Your task to perform on an android device: change notification settings in the gmail app Image 0: 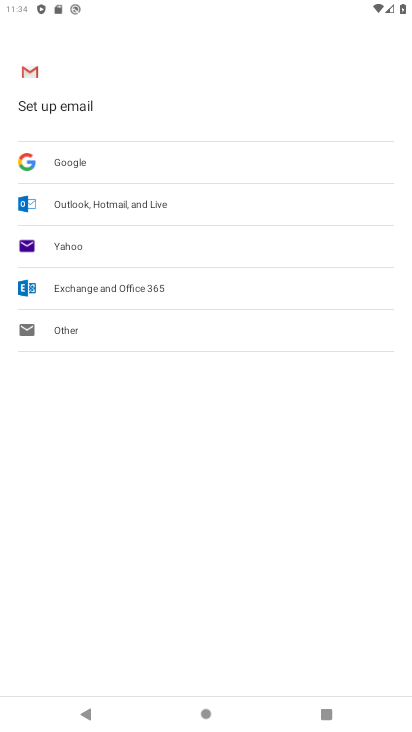
Step 0: press home button
Your task to perform on an android device: change notification settings in the gmail app Image 1: 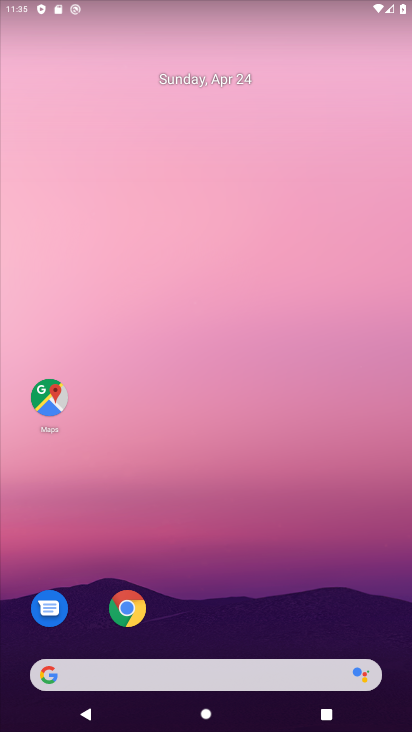
Step 1: drag from (236, 713) to (218, 136)
Your task to perform on an android device: change notification settings in the gmail app Image 2: 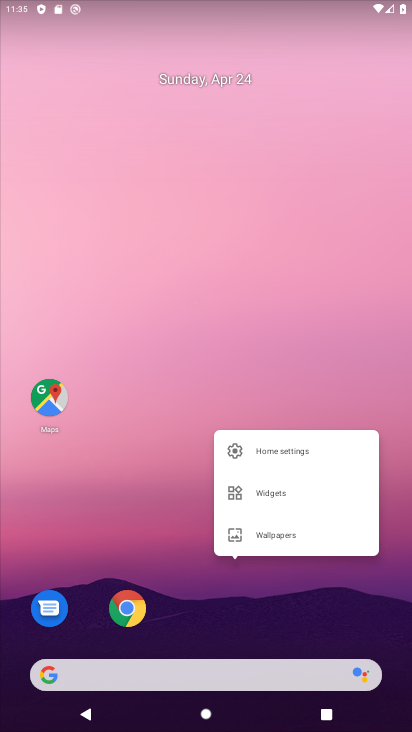
Step 2: click (205, 256)
Your task to perform on an android device: change notification settings in the gmail app Image 3: 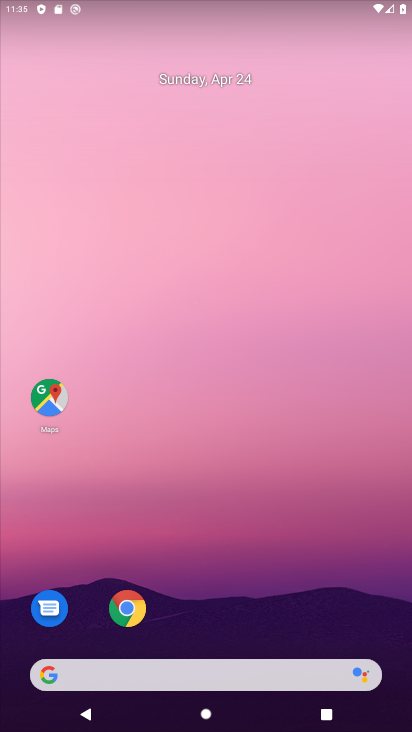
Step 3: drag from (223, 728) to (212, 123)
Your task to perform on an android device: change notification settings in the gmail app Image 4: 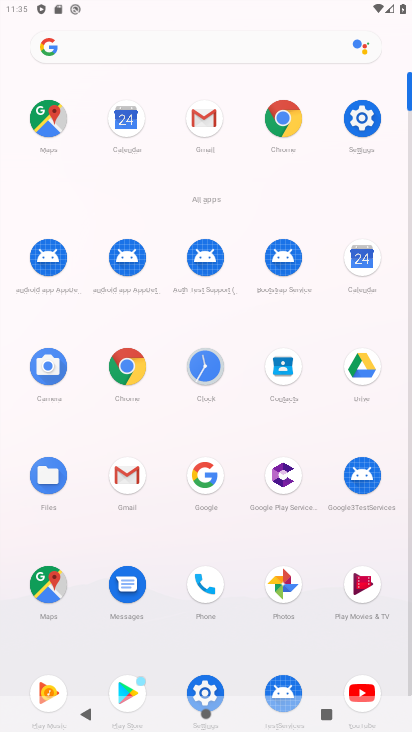
Step 4: click (128, 475)
Your task to perform on an android device: change notification settings in the gmail app Image 5: 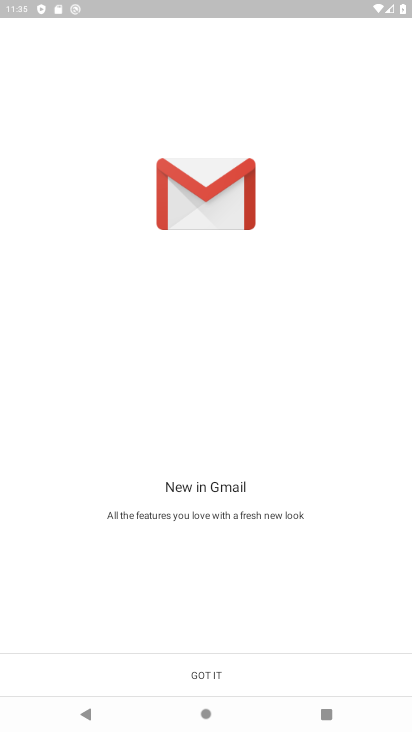
Step 5: click (210, 669)
Your task to perform on an android device: change notification settings in the gmail app Image 6: 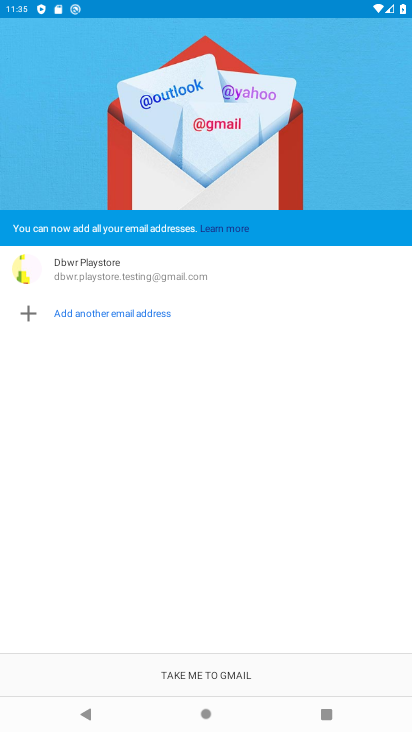
Step 6: click (210, 669)
Your task to perform on an android device: change notification settings in the gmail app Image 7: 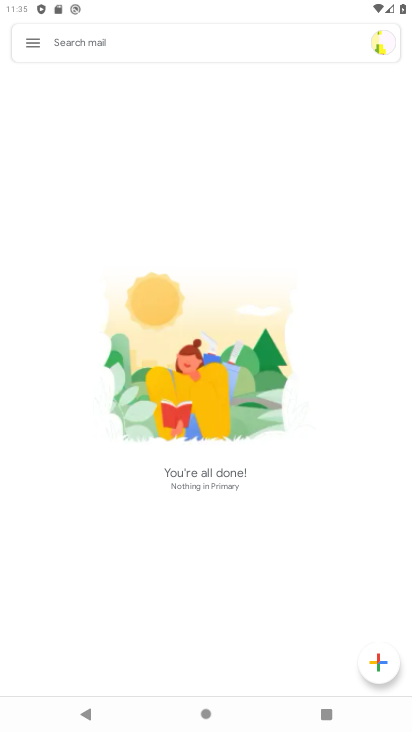
Step 7: click (29, 40)
Your task to perform on an android device: change notification settings in the gmail app Image 8: 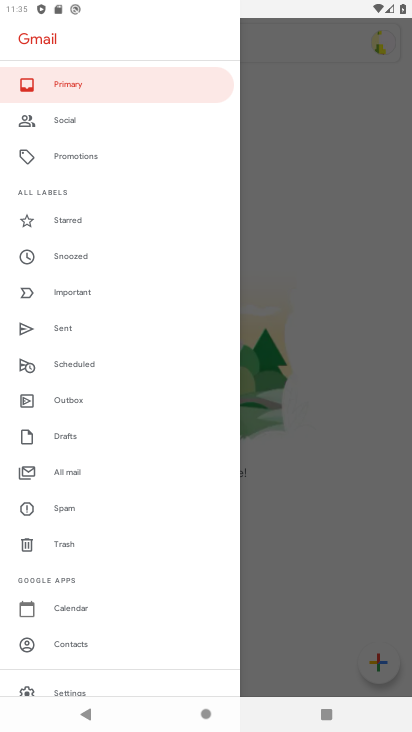
Step 8: click (70, 684)
Your task to perform on an android device: change notification settings in the gmail app Image 9: 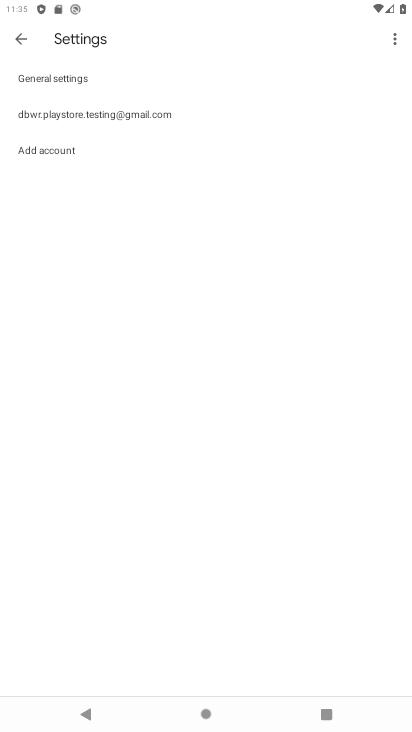
Step 9: click (151, 110)
Your task to perform on an android device: change notification settings in the gmail app Image 10: 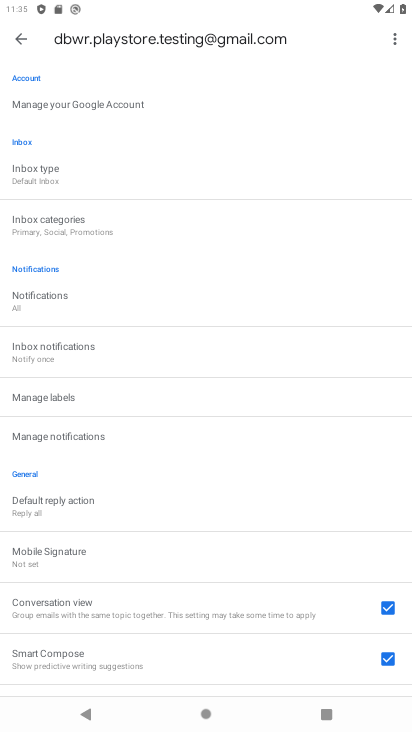
Step 10: click (58, 297)
Your task to perform on an android device: change notification settings in the gmail app Image 11: 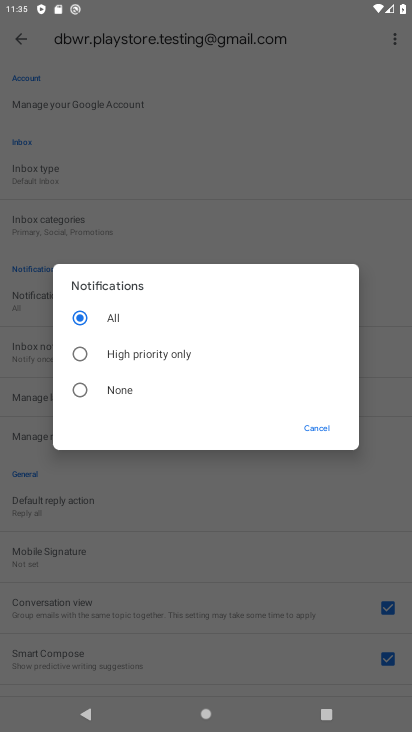
Step 11: click (77, 389)
Your task to perform on an android device: change notification settings in the gmail app Image 12: 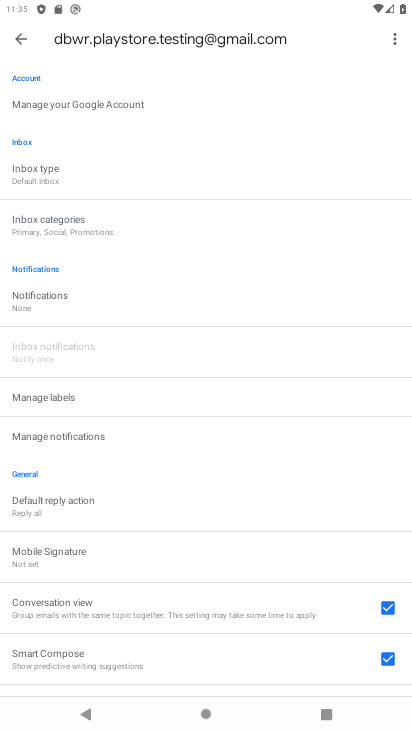
Step 12: task complete